Your task to perform on an android device: When is my next appointment? Image 0: 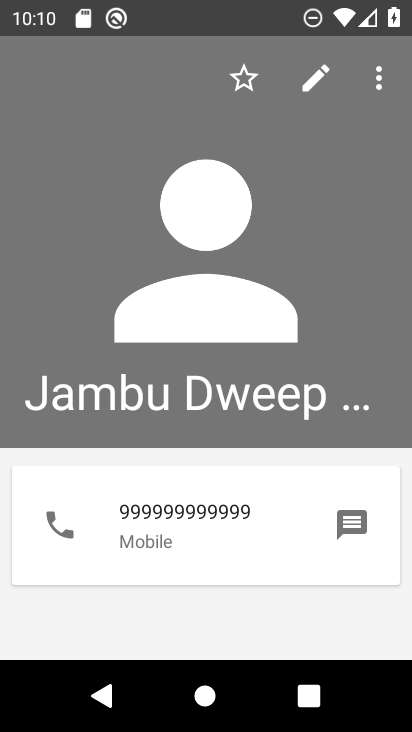
Step 0: press home button
Your task to perform on an android device: When is my next appointment? Image 1: 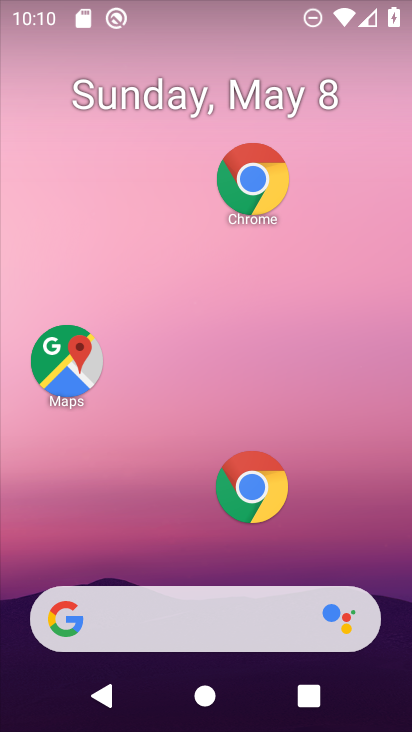
Step 1: drag from (91, 513) to (156, 61)
Your task to perform on an android device: When is my next appointment? Image 2: 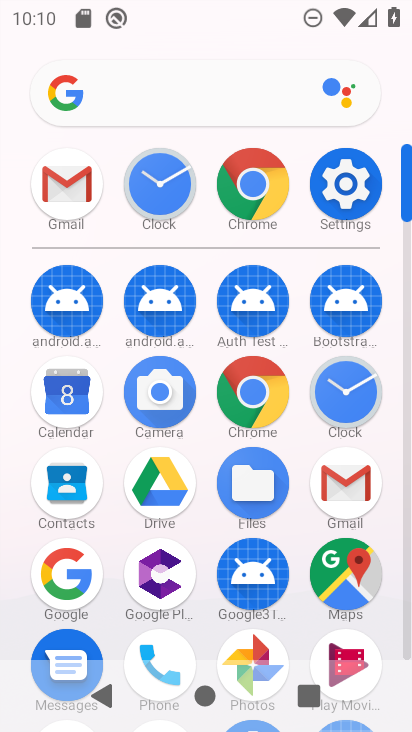
Step 2: click (59, 404)
Your task to perform on an android device: When is my next appointment? Image 3: 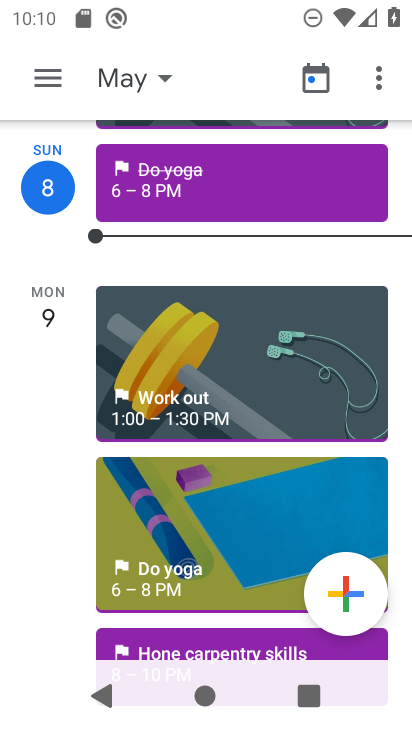
Step 3: task complete